Your task to perform on an android device: turn on location history Image 0: 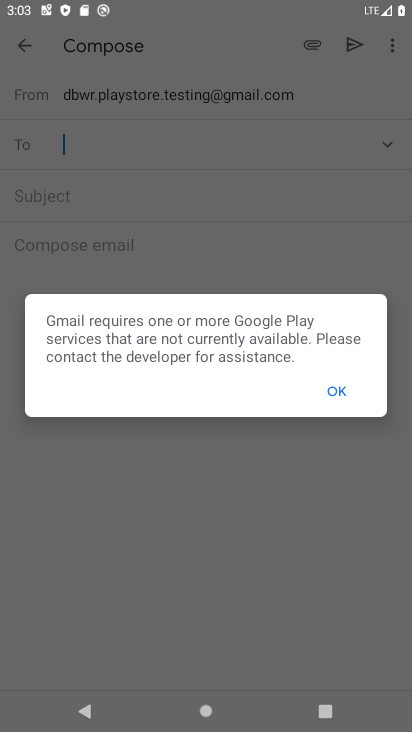
Step 0: press home button
Your task to perform on an android device: turn on location history Image 1: 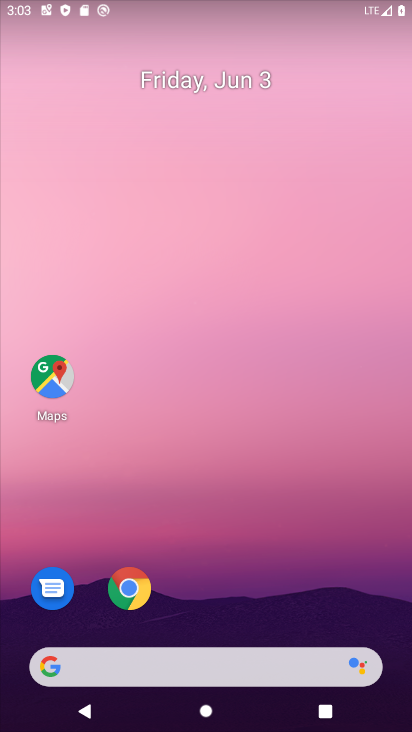
Step 1: press home button
Your task to perform on an android device: turn on location history Image 2: 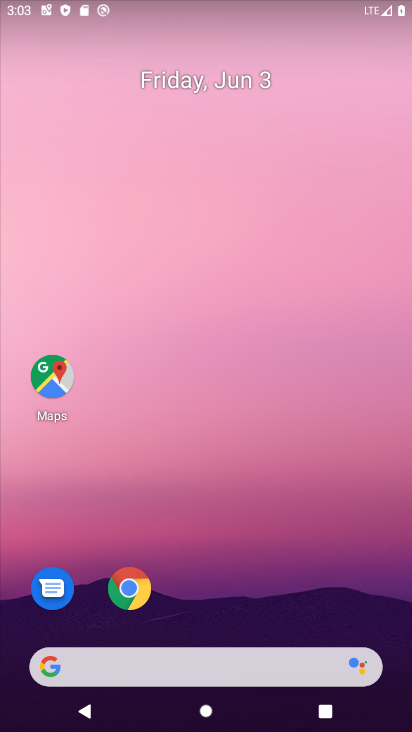
Step 2: drag from (20, 598) to (409, 13)
Your task to perform on an android device: turn on location history Image 3: 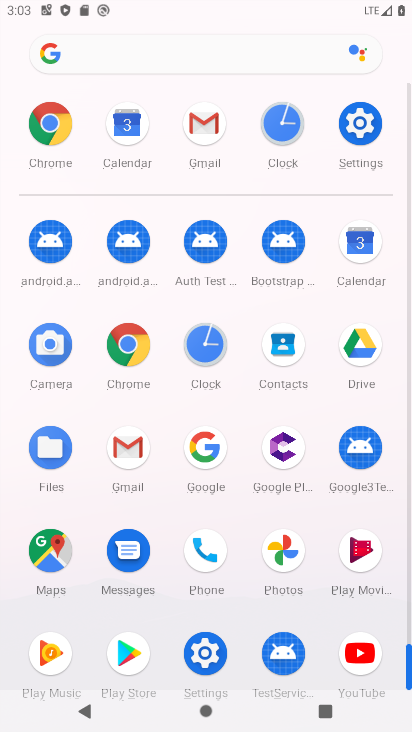
Step 3: click (343, 145)
Your task to perform on an android device: turn on location history Image 4: 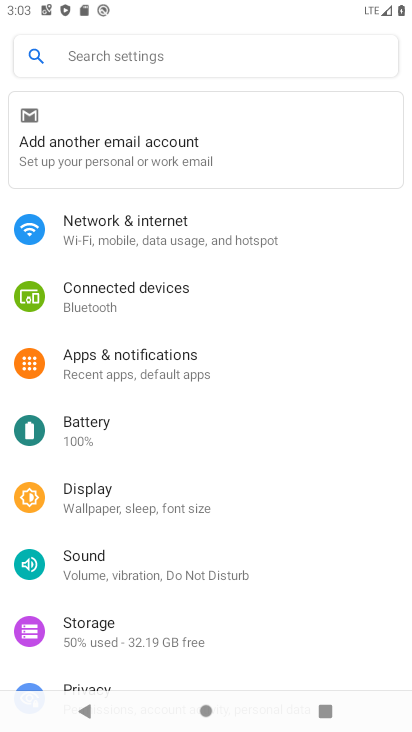
Step 4: drag from (22, 587) to (312, 206)
Your task to perform on an android device: turn on location history Image 5: 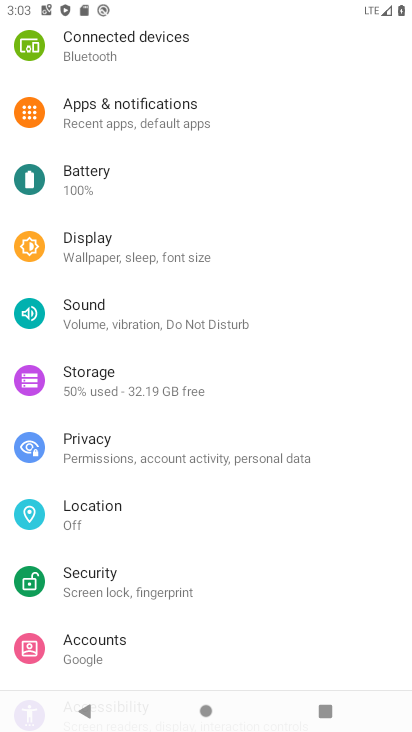
Step 5: click (116, 521)
Your task to perform on an android device: turn on location history Image 6: 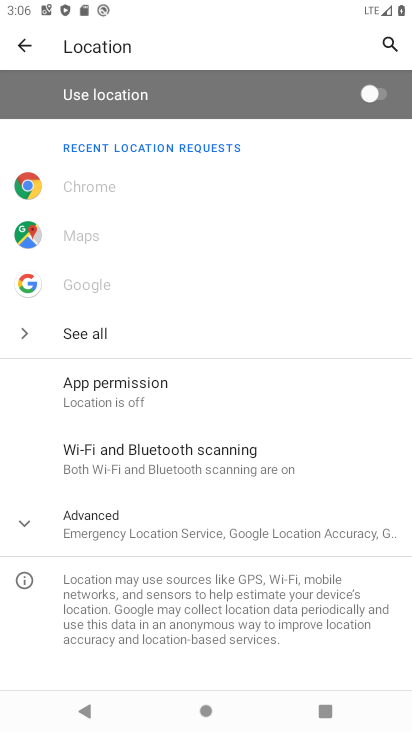
Step 6: click (178, 538)
Your task to perform on an android device: turn on location history Image 7: 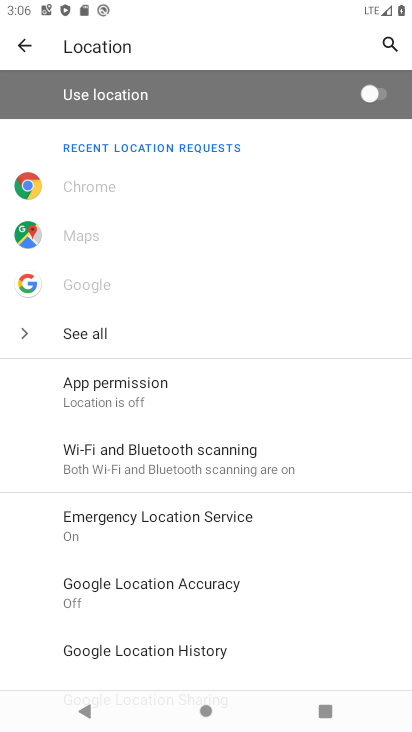
Step 7: click (131, 648)
Your task to perform on an android device: turn on location history Image 8: 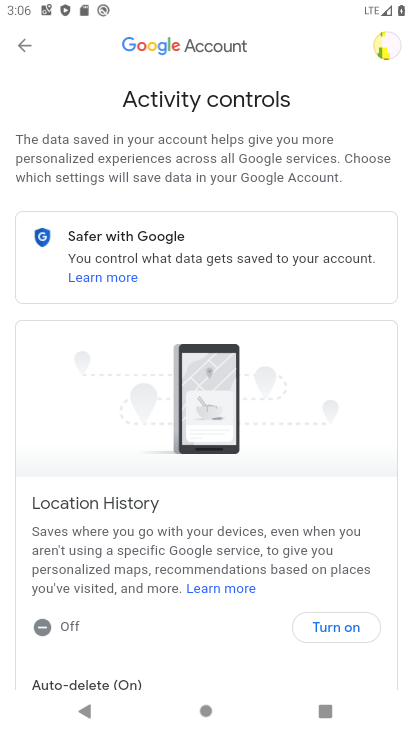
Step 8: click (327, 626)
Your task to perform on an android device: turn on location history Image 9: 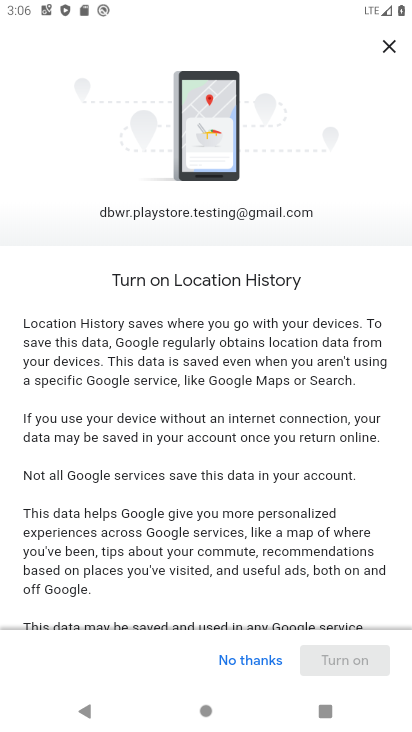
Step 9: drag from (19, 591) to (332, 91)
Your task to perform on an android device: turn on location history Image 10: 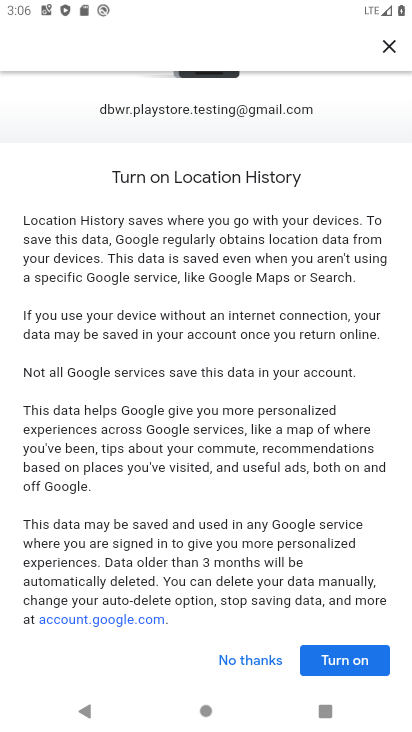
Step 10: click (345, 651)
Your task to perform on an android device: turn on location history Image 11: 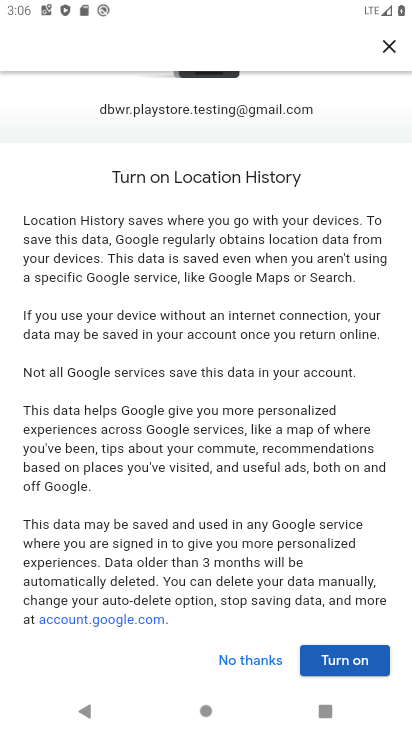
Step 11: click (363, 663)
Your task to perform on an android device: turn on location history Image 12: 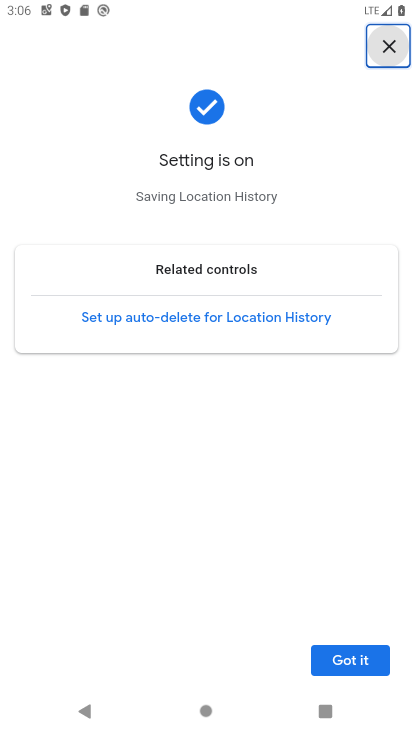
Step 12: task complete